Your task to perform on an android device: Open Google Chrome Image 0: 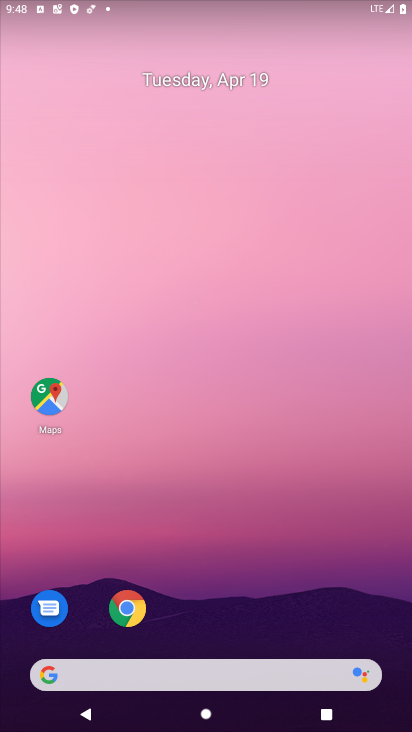
Step 0: click (130, 611)
Your task to perform on an android device: Open Google Chrome Image 1: 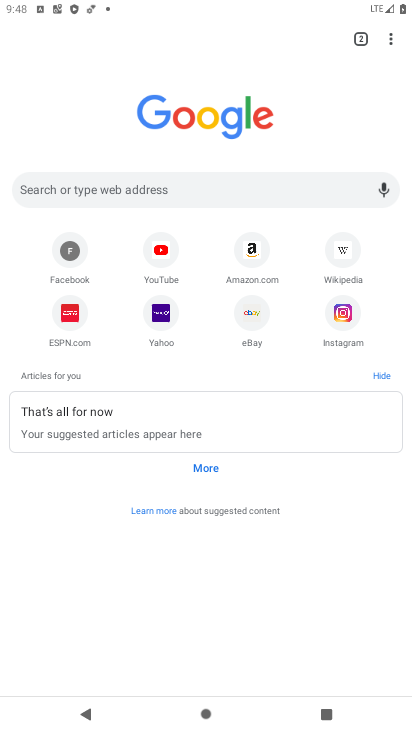
Step 1: click (389, 39)
Your task to perform on an android device: Open Google Chrome Image 2: 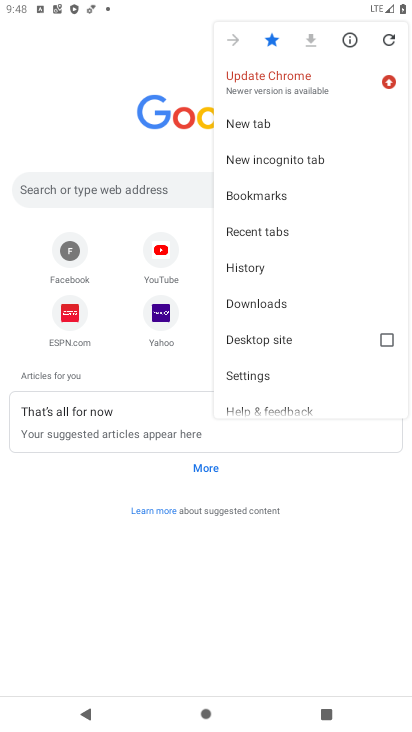
Step 2: click (146, 129)
Your task to perform on an android device: Open Google Chrome Image 3: 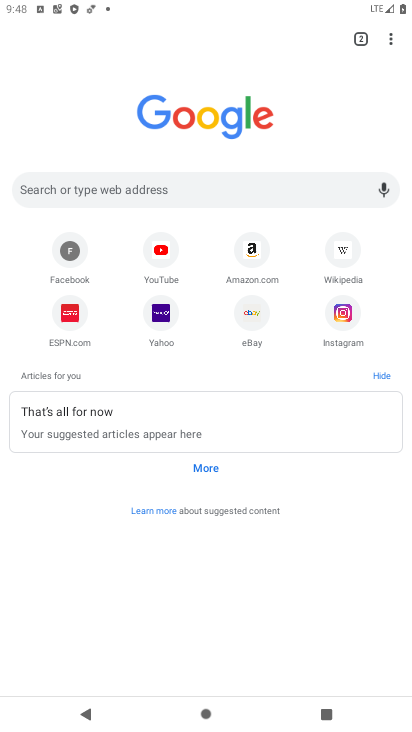
Step 3: task complete